Your task to perform on an android device: turn on improve location accuracy Image 0: 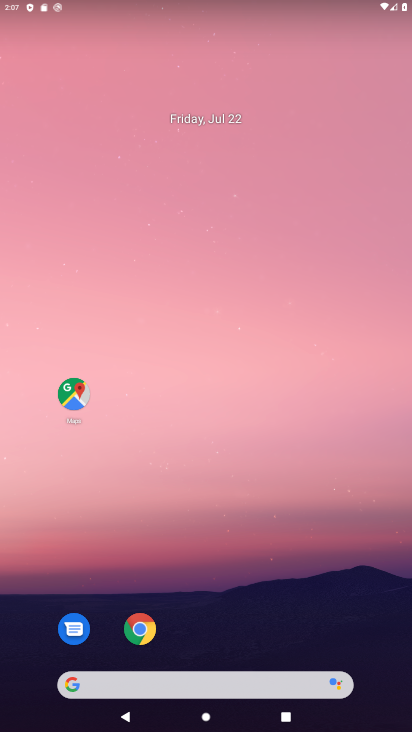
Step 0: drag from (234, 599) to (173, 94)
Your task to perform on an android device: turn on improve location accuracy Image 1: 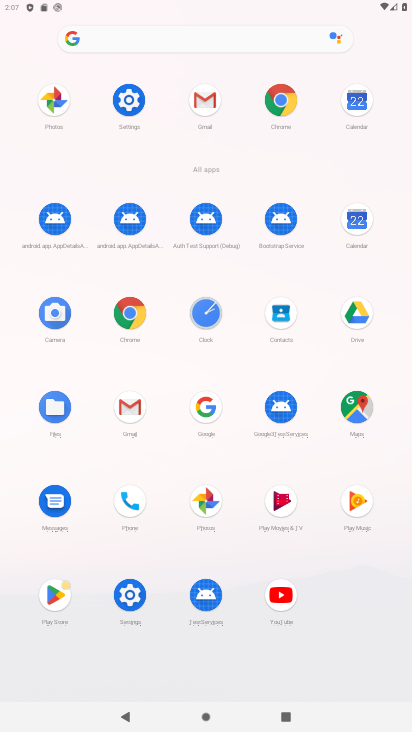
Step 1: click (123, 103)
Your task to perform on an android device: turn on improve location accuracy Image 2: 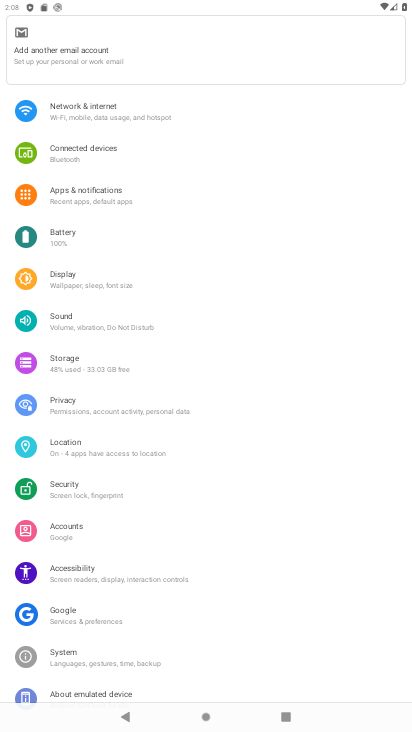
Step 2: click (49, 447)
Your task to perform on an android device: turn on improve location accuracy Image 3: 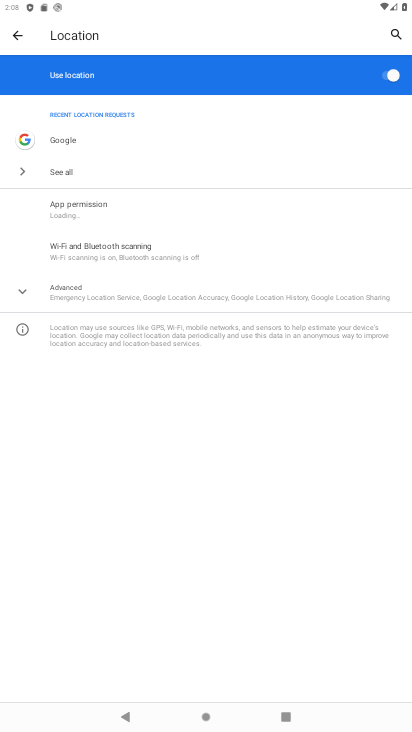
Step 3: click (85, 289)
Your task to perform on an android device: turn on improve location accuracy Image 4: 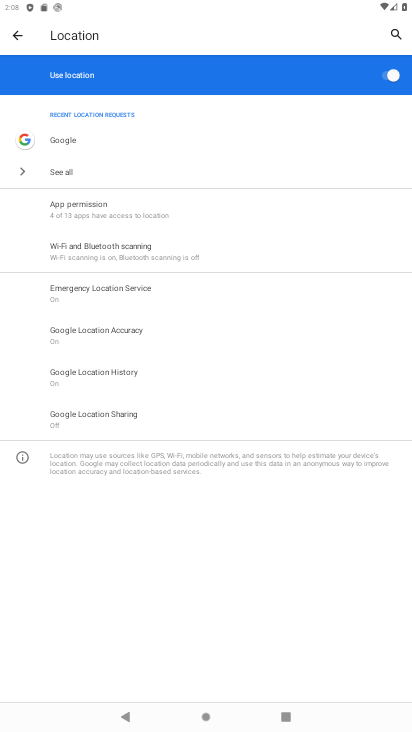
Step 4: click (131, 333)
Your task to perform on an android device: turn on improve location accuracy Image 5: 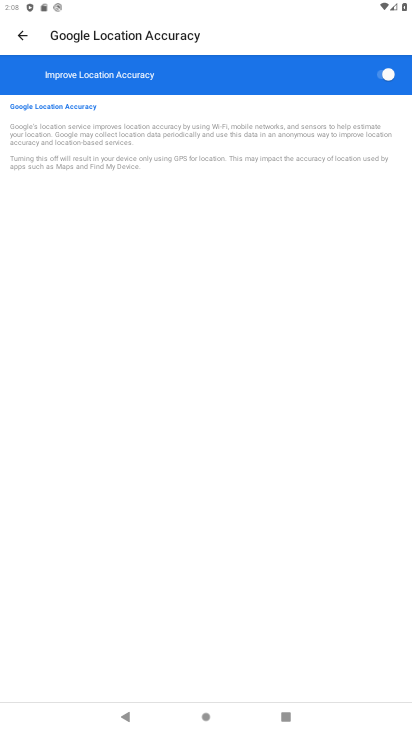
Step 5: task complete